Your task to perform on an android device: Empty the shopping cart on walmart. Add apple airpods pro to the cart on walmart, then select checkout. Image 0: 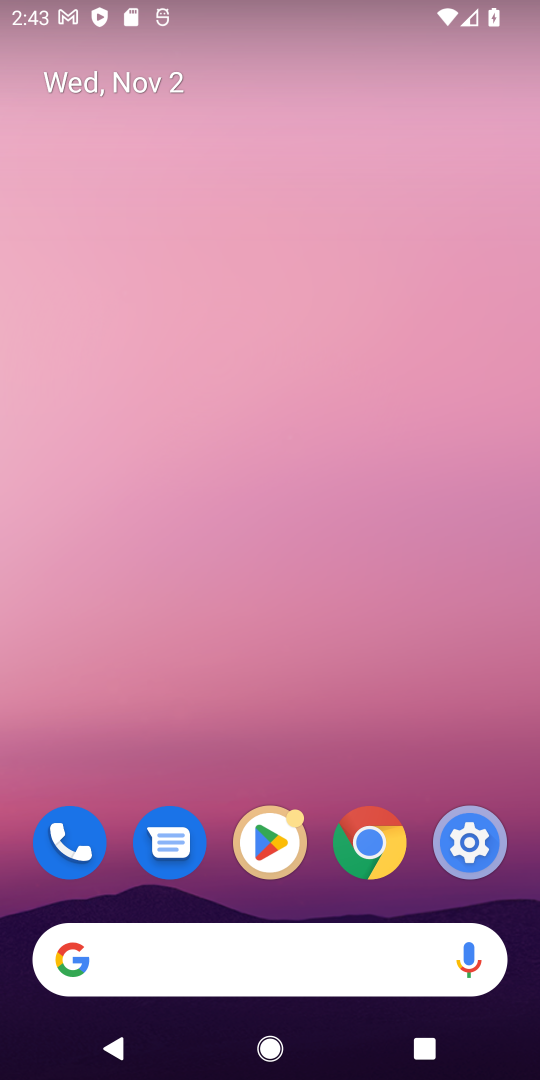
Step 0: click (256, 956)
Your task to perform on an android device: Empty the shopping cart on walmart. Add apple airpods pro to the cart on walmart, then select checkout. Image 1: 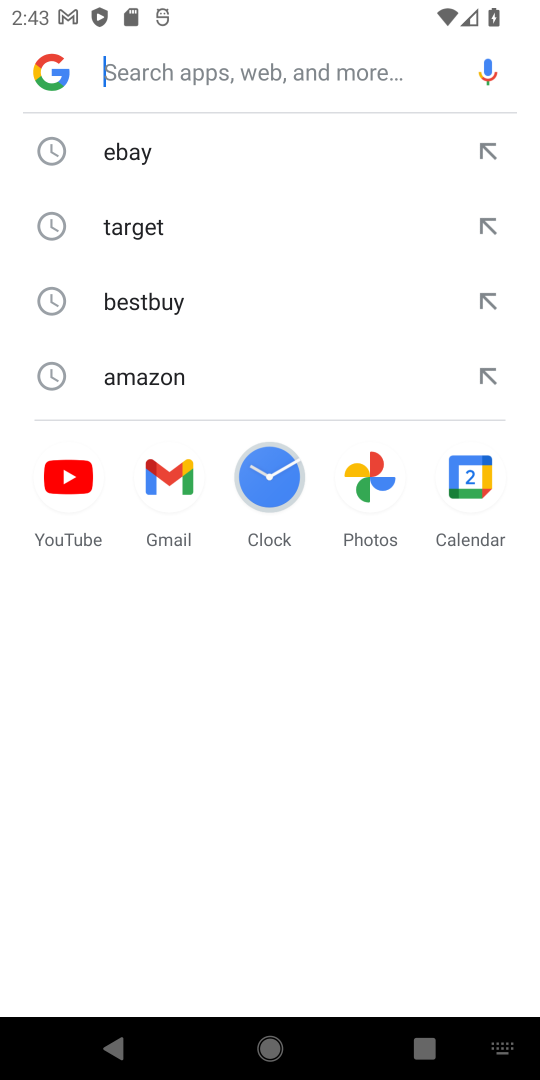
Step 1: type "walmart"
Your task to perform on an android device: Empty the shopping cart on walmart. Add apple airpods pro to the cart on walmart, then select checkout. Image 2: 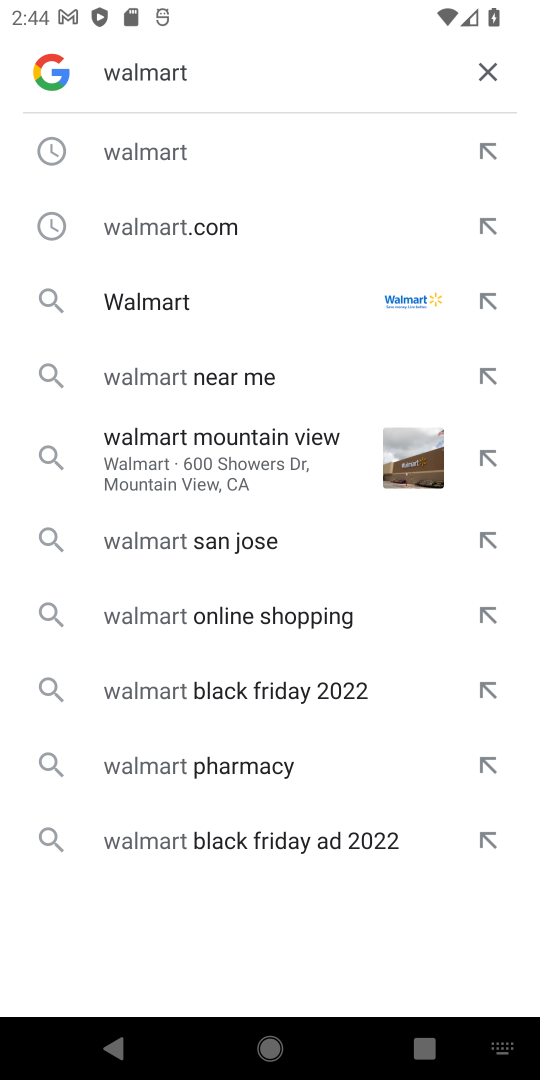
Step 2: click (164, 144)
Your task to perform on an android device: Empty the shopping cart on walmart. Add apple airpods pro to the cart on walmart, then select checkout. Image 3: 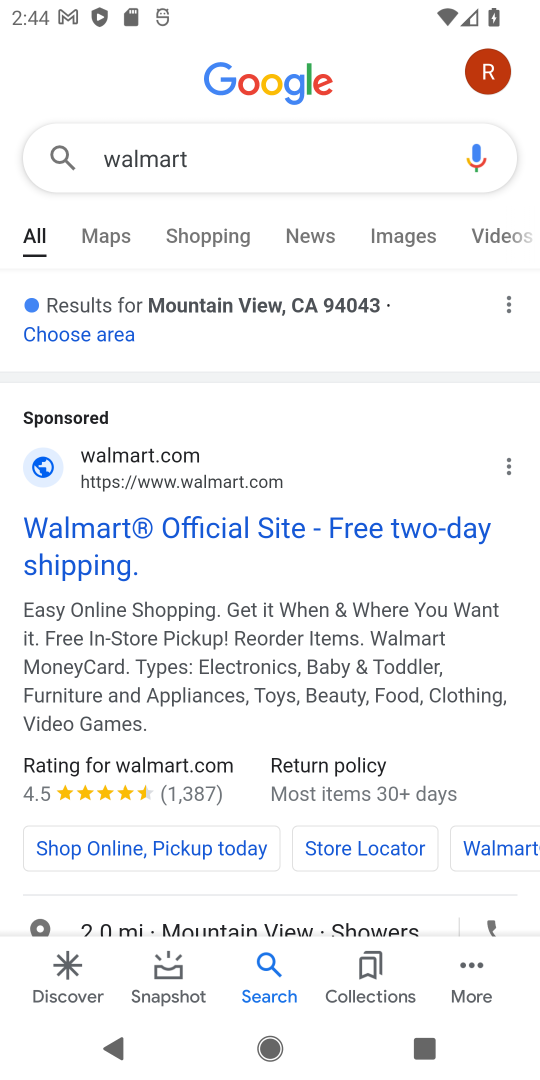
Step 3: drag from (220, 753) to (205, 255)
Your task to perform on an android device: Empty the shopping cart on walmart. Add apple airpods pro to the cart on walmart, then select checkout. Image 4: 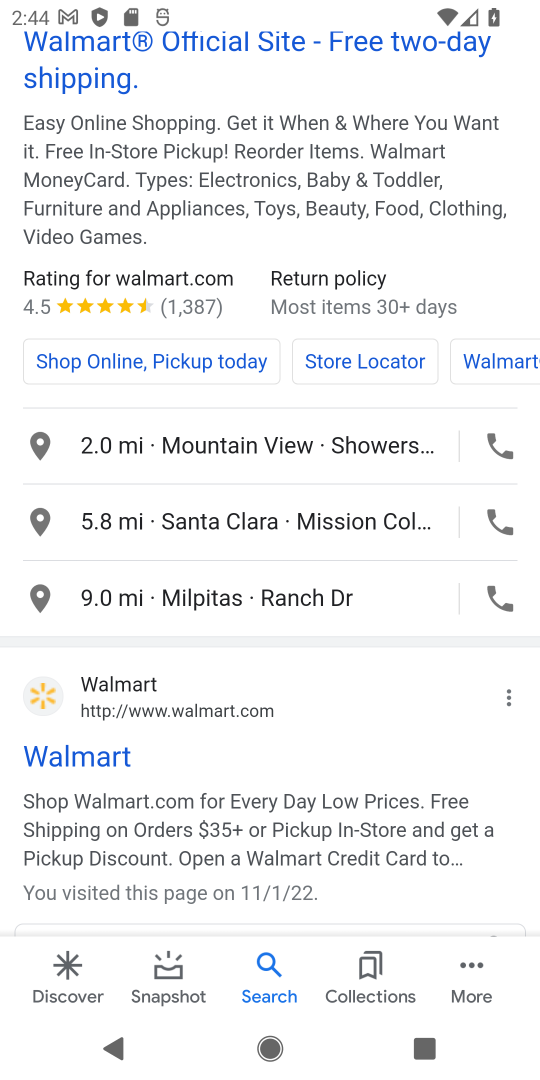
Step 4: click (70, 760)
Your task to perform on an android device: Empty the shopping cart on walmart. Add apple airpods pro to the cart on walmart, then select checkout. Image 5: 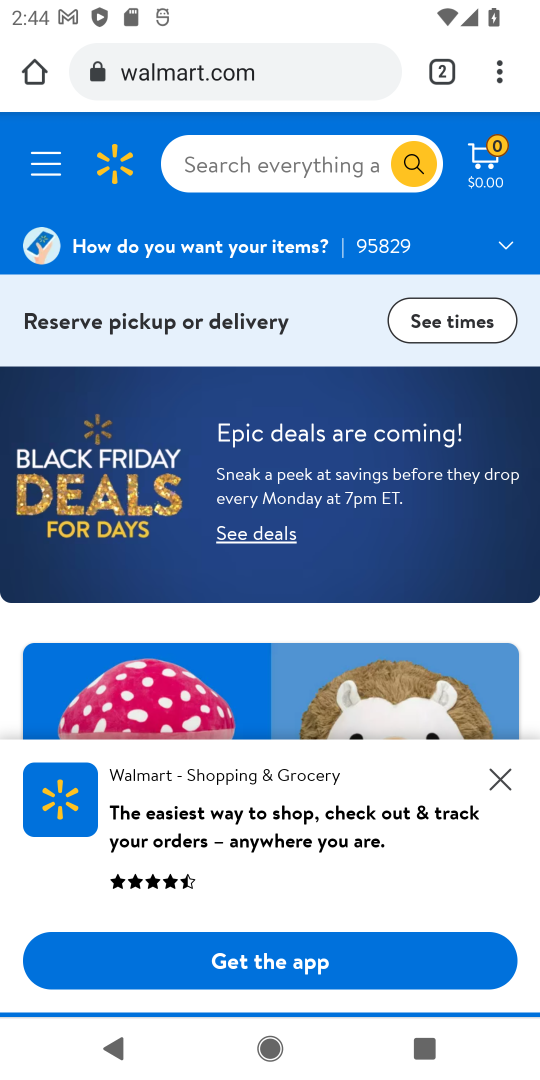
Step 5: click (499, 768)
Your task to perform on an android device: Empty the shopping cart on walmart. Add apple airpods pro to the cart on walmart, then select checkout. Image 6: 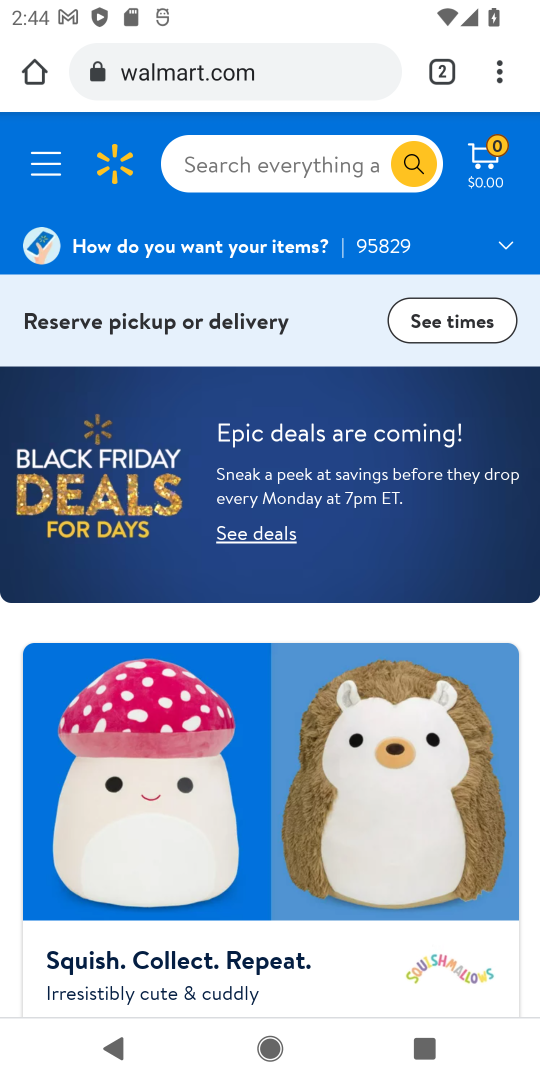
Step 6: click (246, 158)
Your task to perform on an android device: Empty the shopping cart on walmart. Add apple airpods pro to the cart on walmart, then select checkout. Image 7: 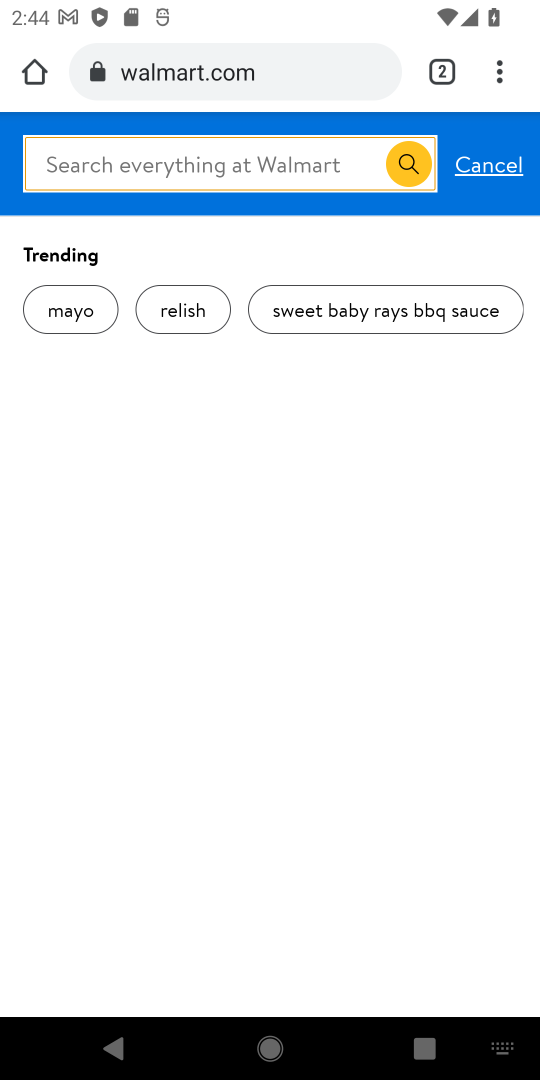
Step 7: type "apple airpod pro"
Your task to perform on an android device: Empty the shopping cart on walmart. Add apple airpods pro to the cart on walmart, then select checkout. Image 8: 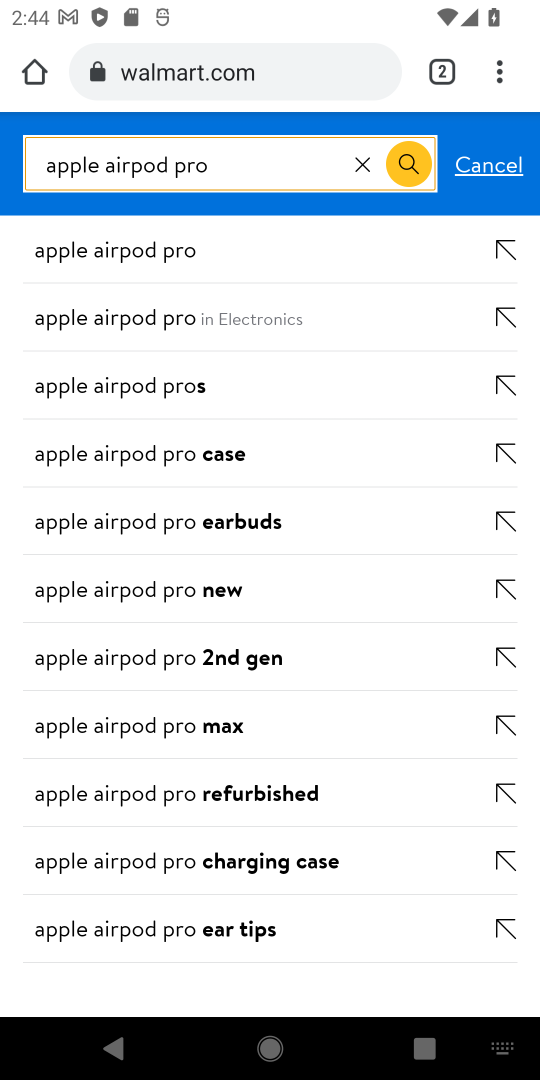
Step 8: click (152, 249)
Your task to perform on an android device: Empty the shopping cart on walmart. Add apple airpods pro to the cart on walmart, then select checkout. Image 9: 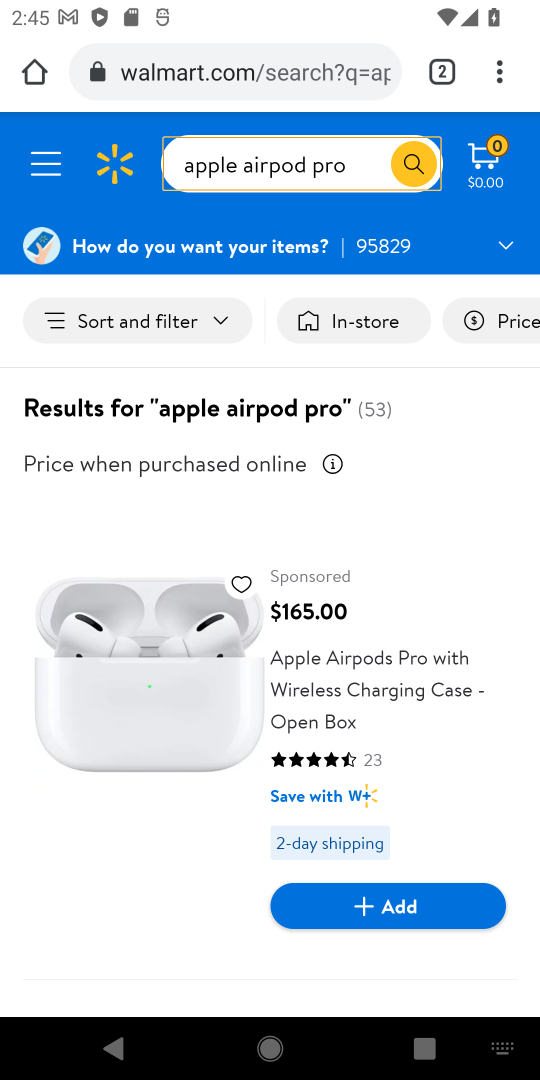
Step 9: click (374, 913)
Your task to perform on an android device: Empty the shopping cart on walmart. Add apple airpods pro to the cart on walmart, then select checkout. Image 10: 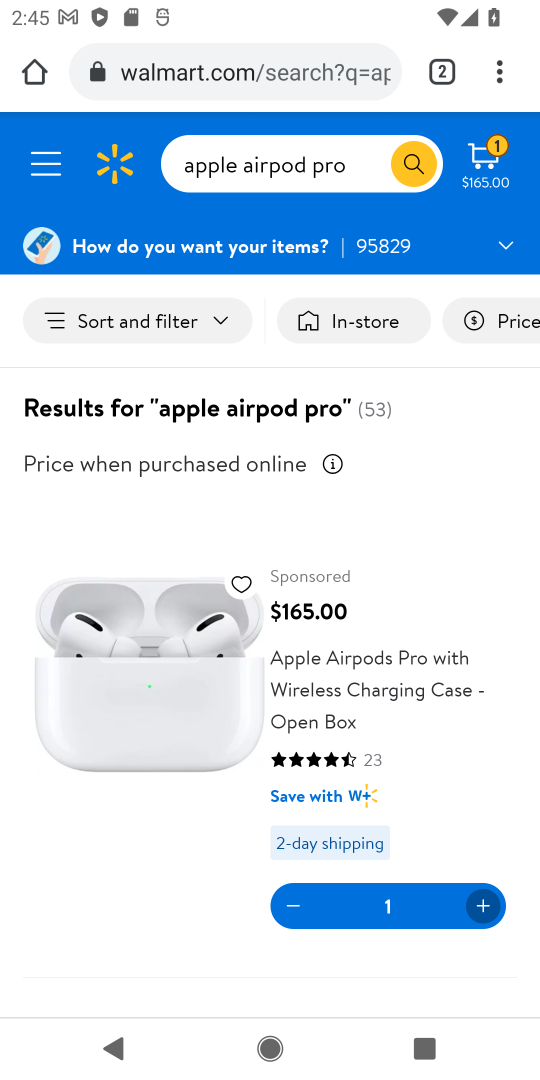
Step 10: click (487, 150)
Your task to perform on an android device: Empty the shopping cart on walmart. Add apple airpods pro to the cart on walmart, then select checkout. Image 11: 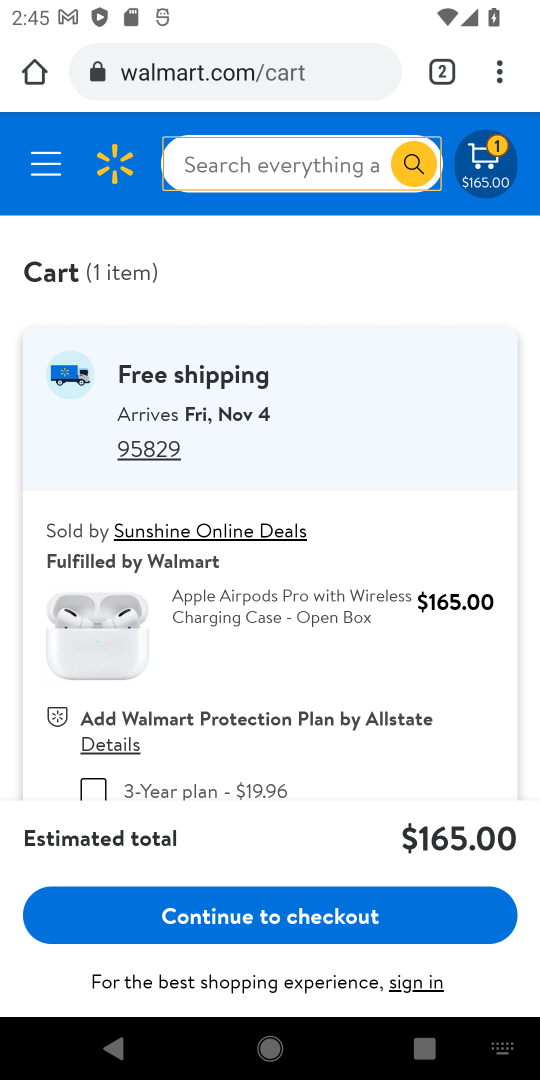
Step 11: click (279, 910)
Your task to perform on an android device: Empty the shopping cart on walmart. Add apple airpods pro to the cart on walmart, then select checkout. Image 12: 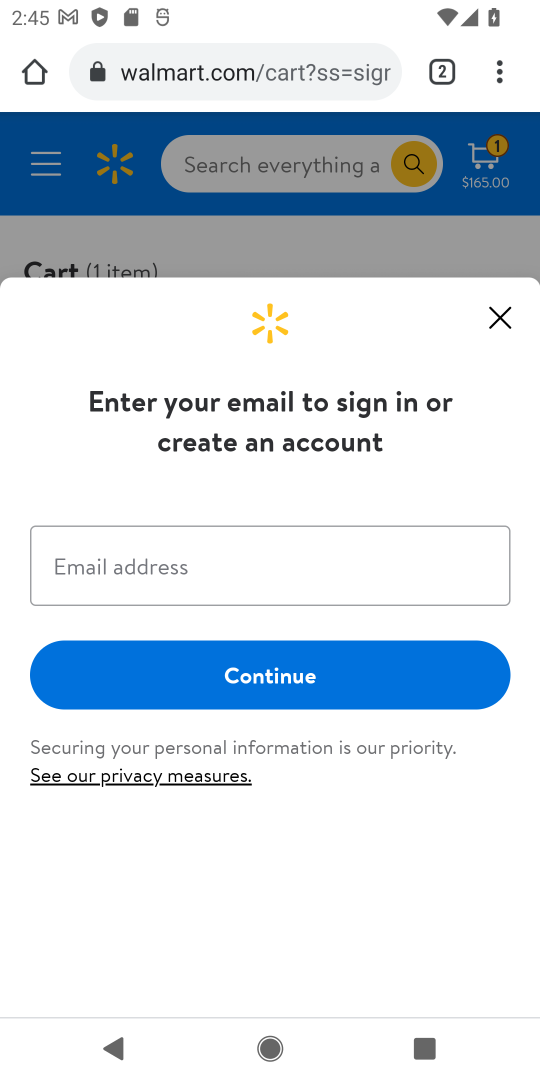
Step 12: task complete